Your task to perform on an android device: Open calendar and show me the third week of next month Image 0: 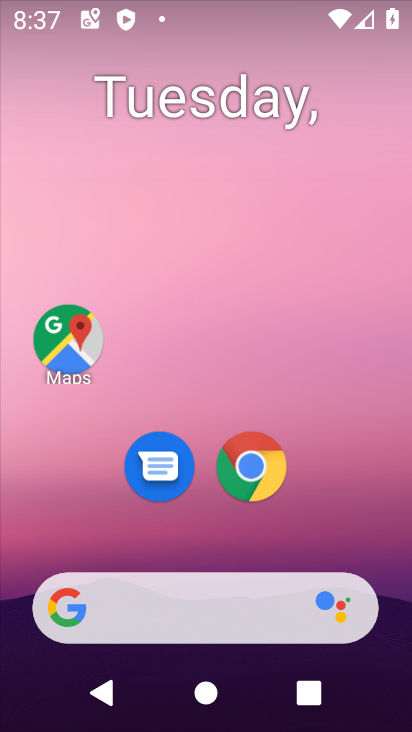
Step 0: drag from (211, 553) to (171, 0)
Your task to perform on an android device: Open calendar and show me the third week of next month Image 1: 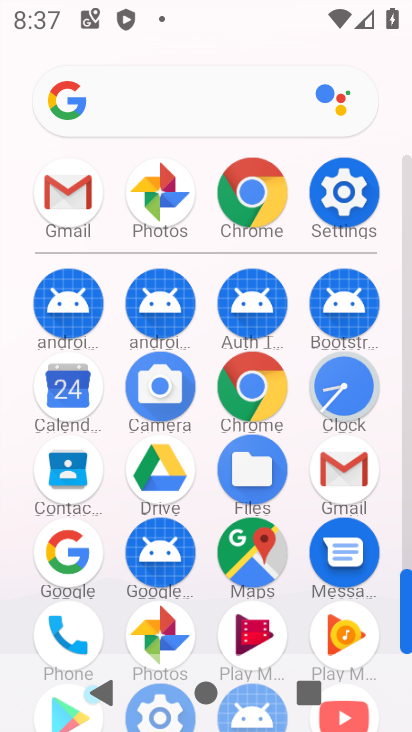
Step 1: click (76, 390)
Your task to perform on an android device: Open calendar and show me the third week of next month Image 2: 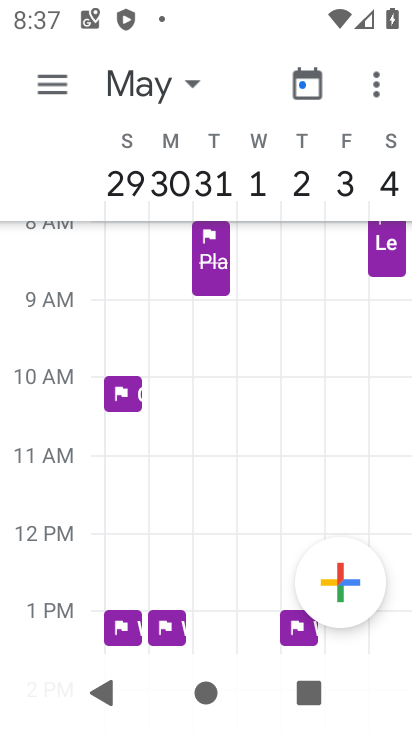
Step 2: task complete